Your task to perform on an android device: Open Google Chrome and open the bookmarks view Image 0: 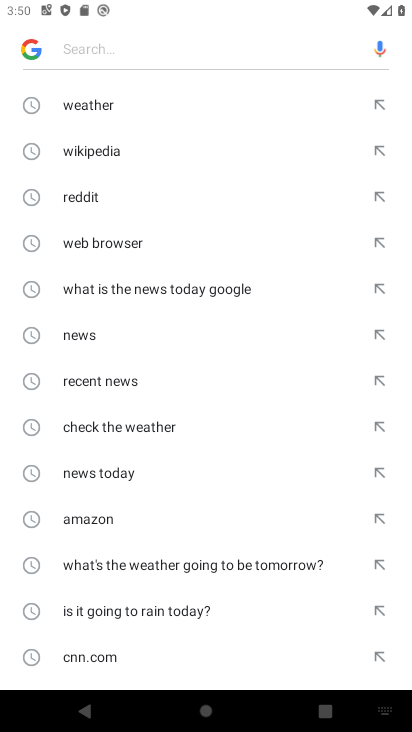
Step 0: press home button
Your task to perform on an android device: Open Google Chrome and open the bookmarks view Image 1: 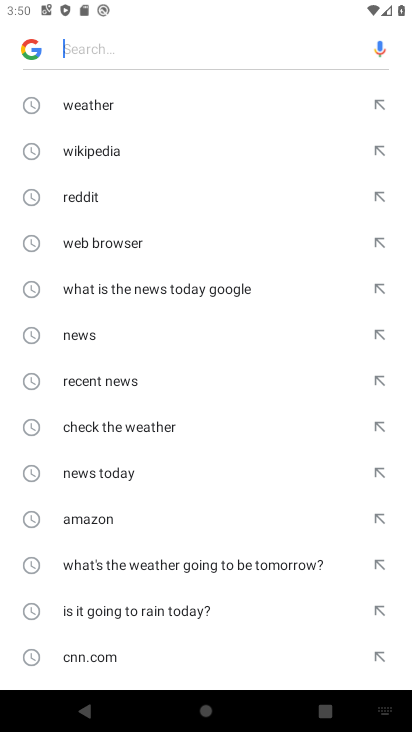
Step 1: press home button
Your task to perform on an android device: Open Google Chrome and open the bookmarks view Image 2: 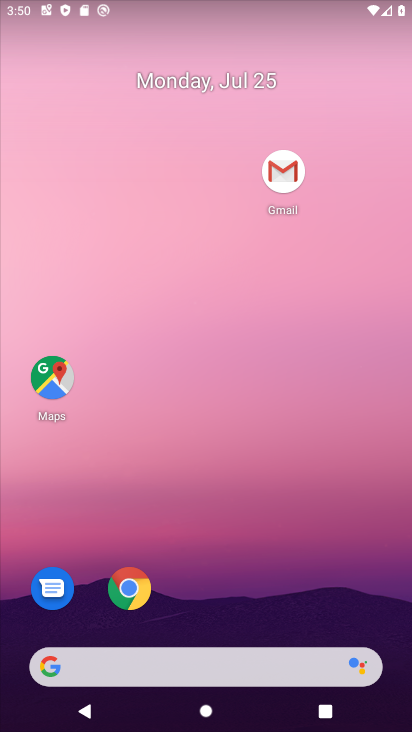
Step 2: drag from (256, 591) to (201, 24)
Your task to perform on an android device: Open Google Chrome and open the bookmarks view Image 3: 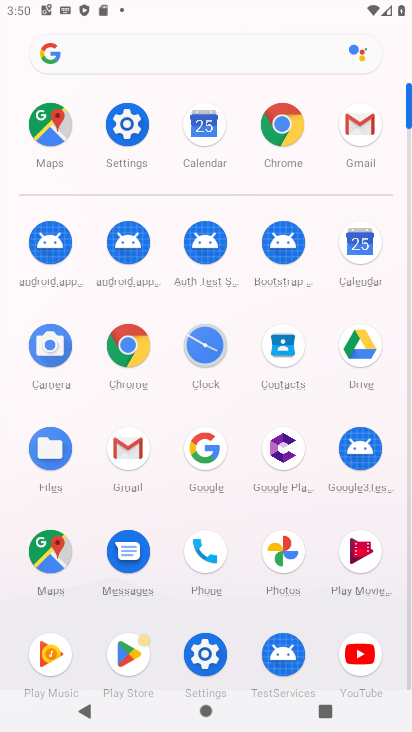
Step 3: click (286, 119)
Your task to perform on an android device: Open Google Chrome and open the bookmarks view Image 4: 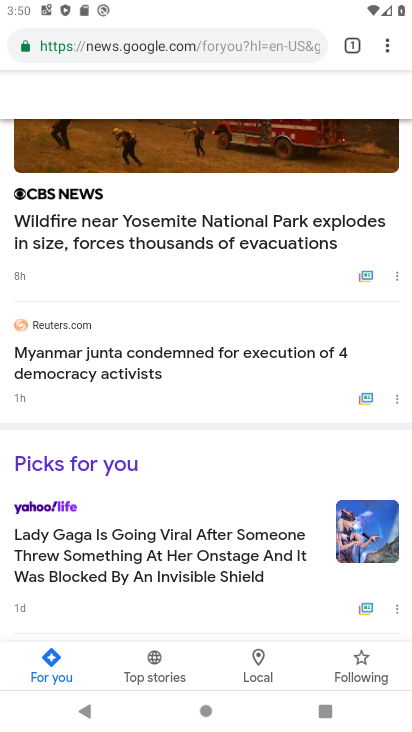
Step 4: task complete